Your task to perform on an android device: install app "Reddit" Image 0: 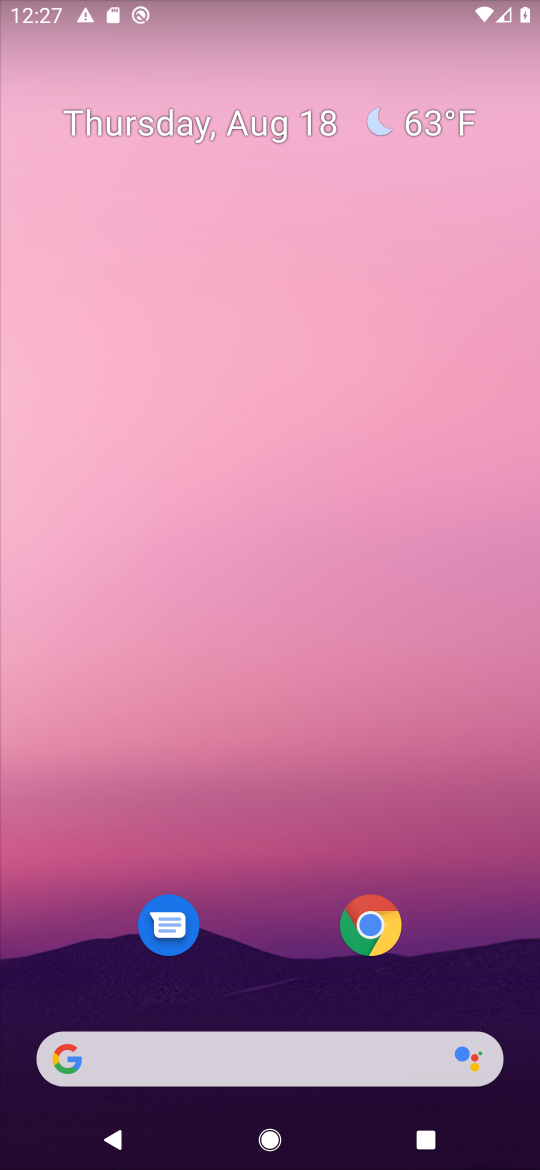
Step 0: drag from (276, 877) to (269, 58)
Your task to perform on an android device: install app "Reddit" Image 1: 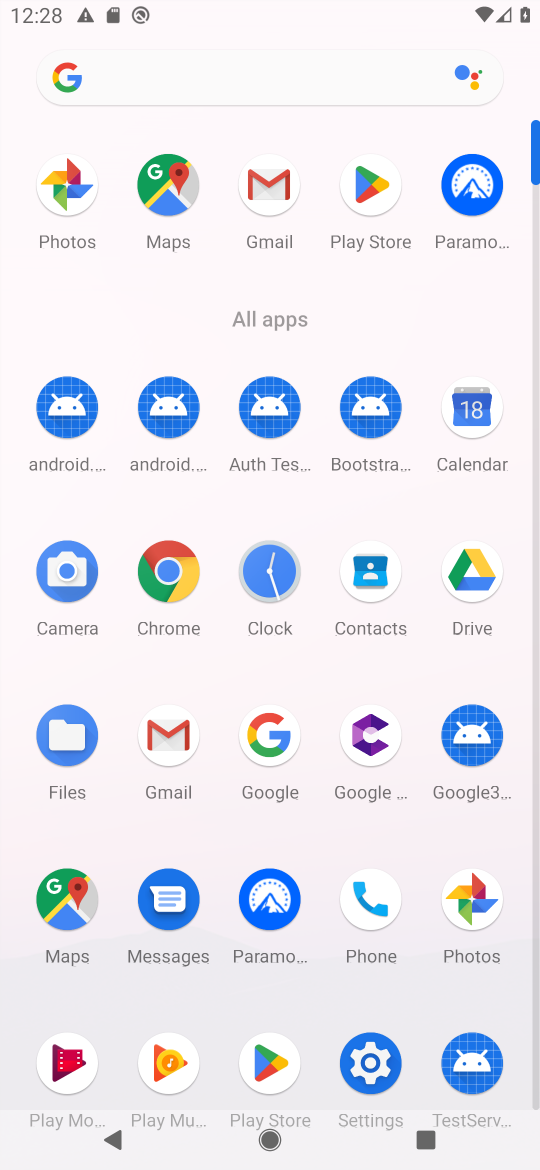
Step 1: click (377, 194)
Your task to perform on an android device: install app "Reddit" Image 2: 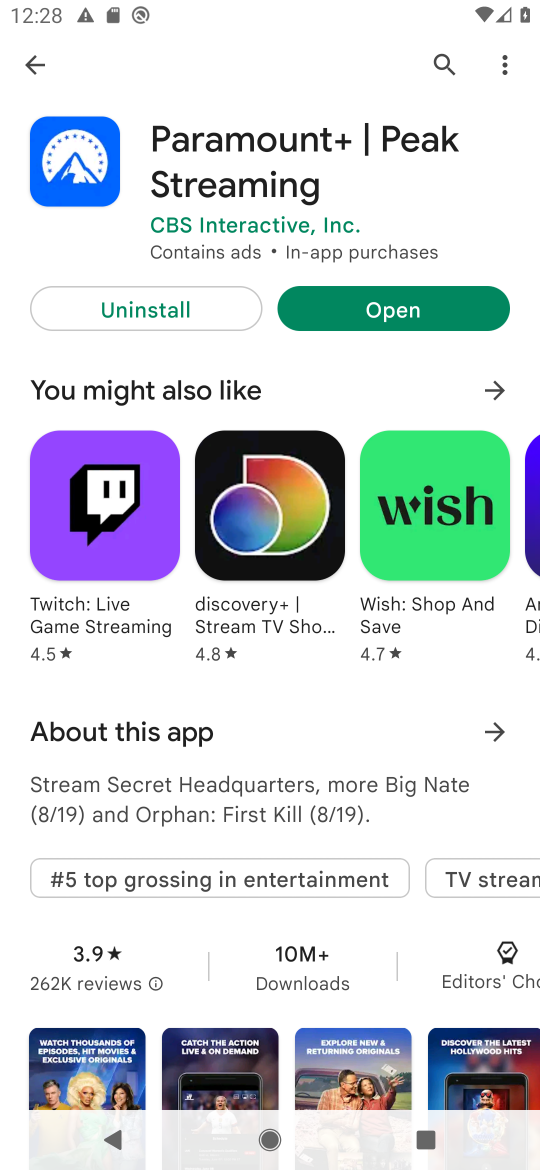
Step 2: click (39, 55)
Your task to perform on an android device: install app "Reddit" Image 3: 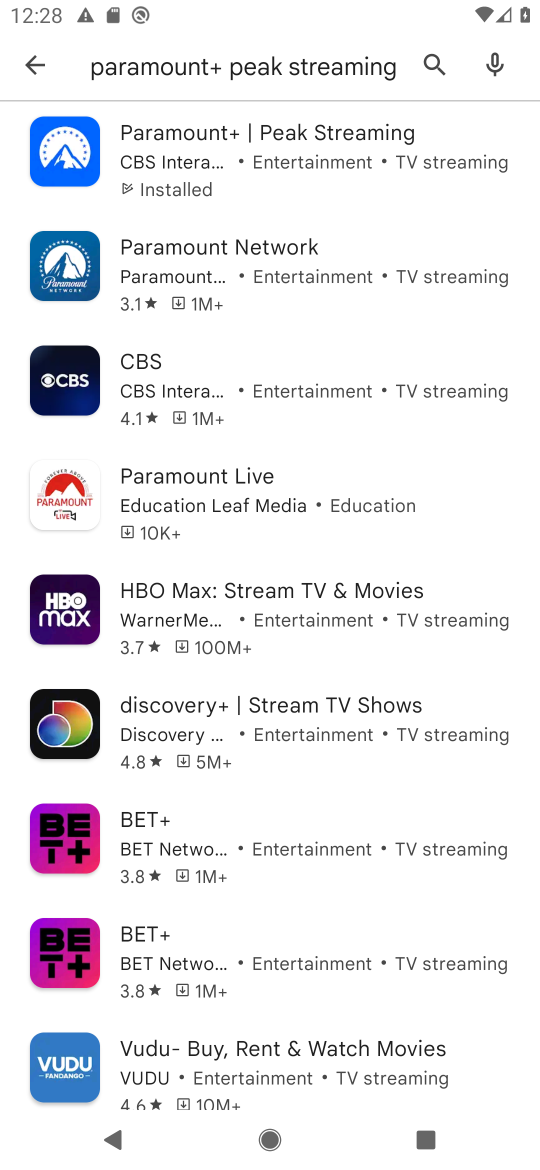
Step 3: click (35, 63)
Your task to perform on an android device: install app "Reddit" Image 4: 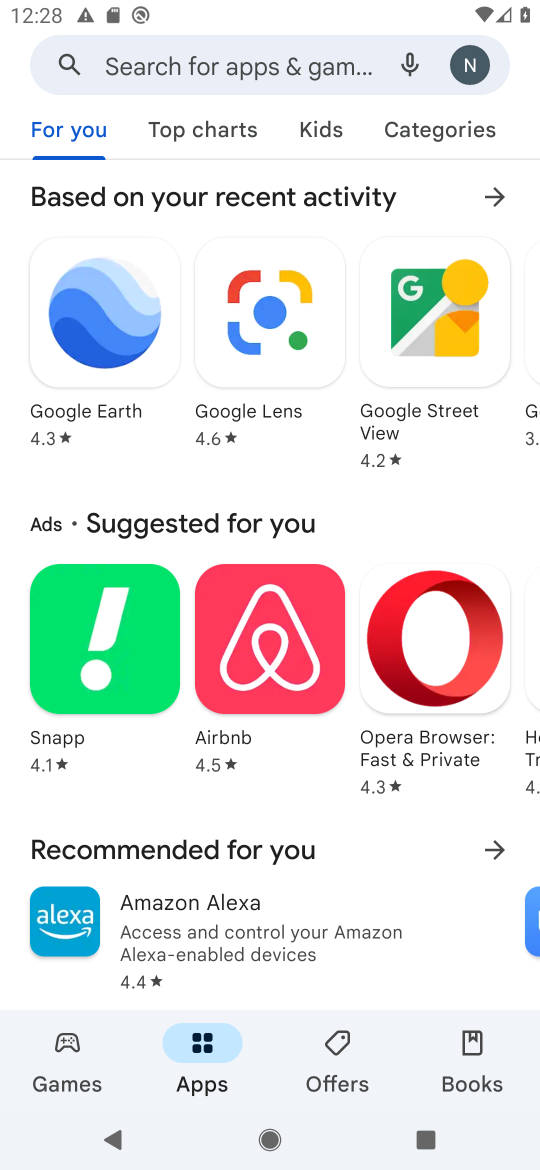
Step 4: click (202, 52)
Your task to perform on an android device: install app "Reddit" Image 5: 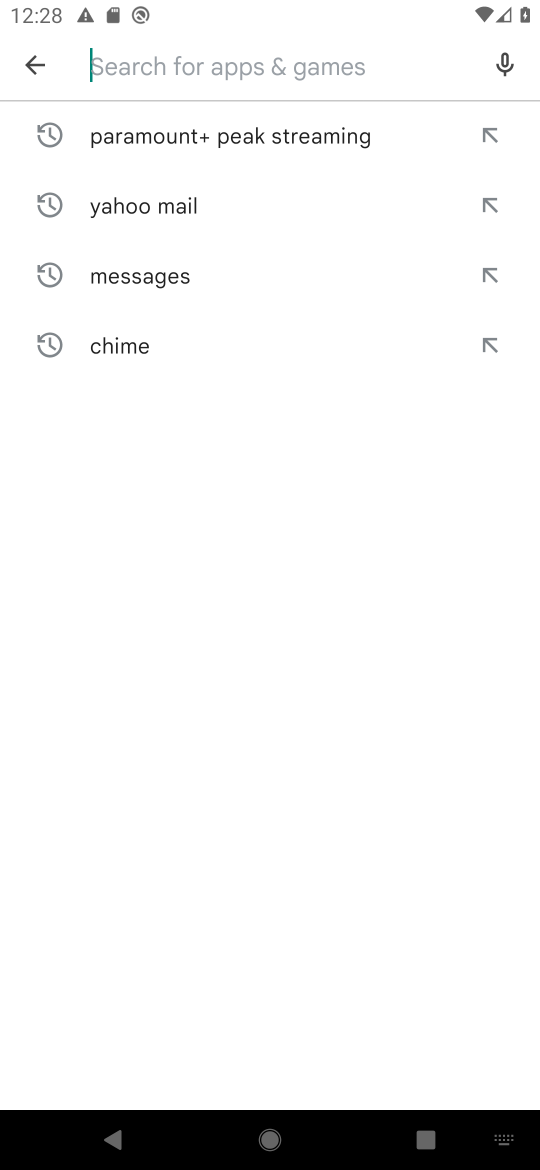
Step 5: type "Reddit"
Your task to perform on an android device: install app "Reddit" Image 6: 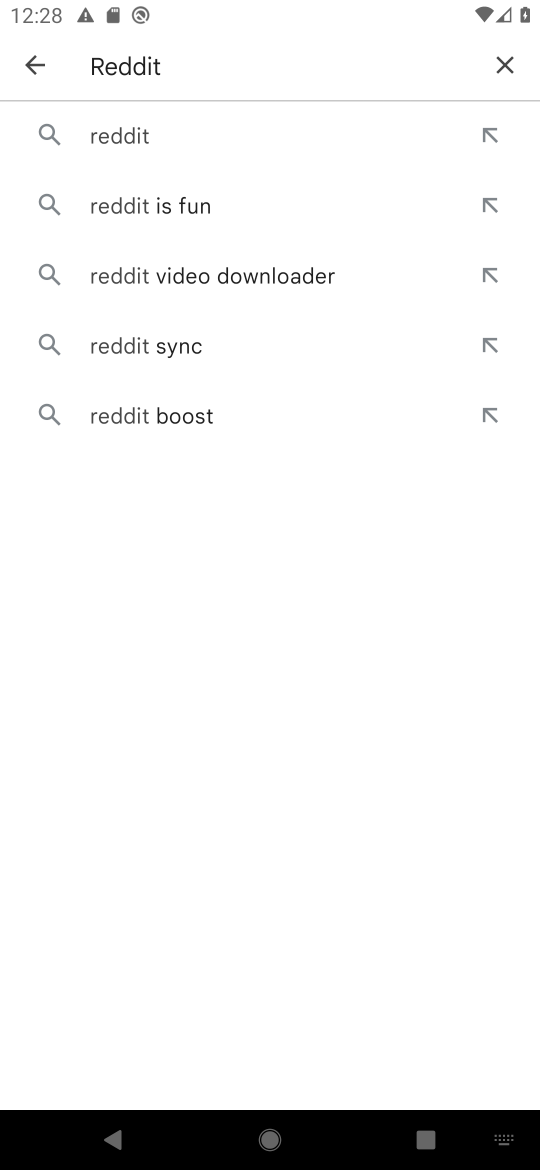
Step 6: click (132, 133)
Your task to perform on an android device: install app "Reddit" Image 7: 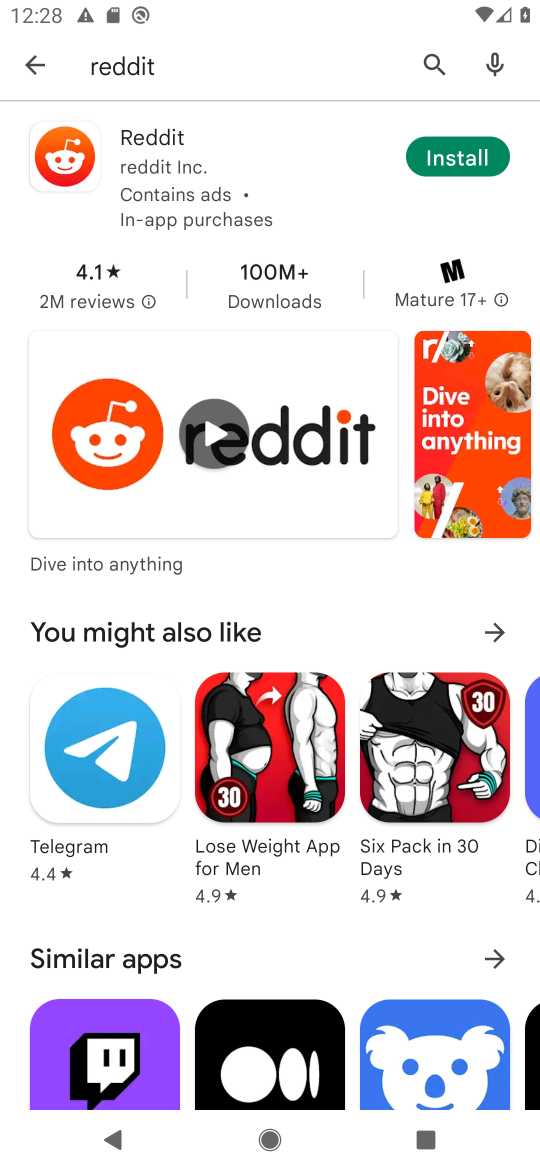
Step 7: click (432, 180)
Your task to perform on an android device: install app "Reddit" Image 8: 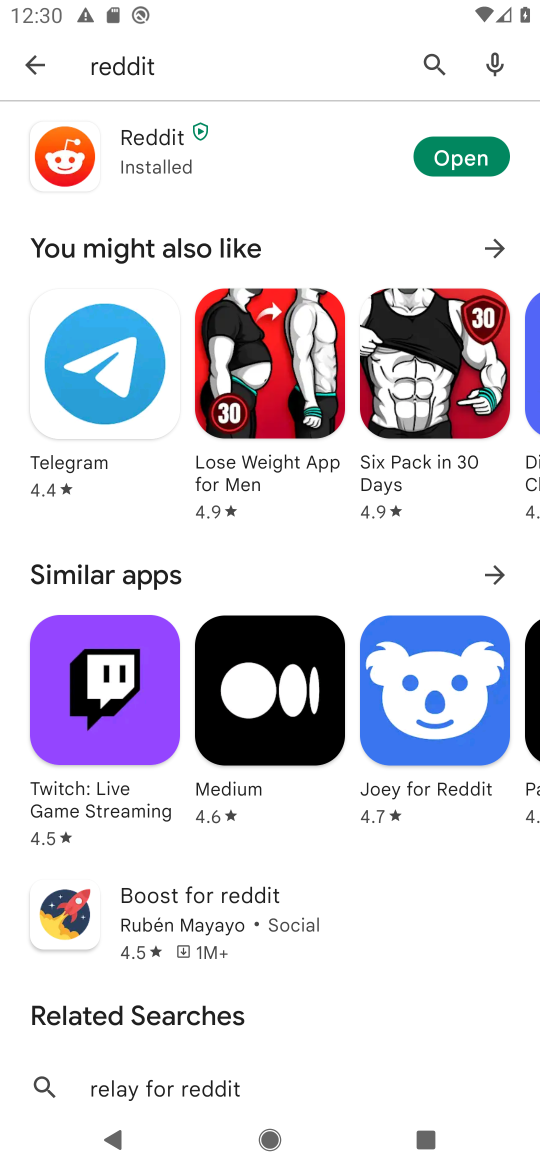
Step 8: task complete